Your task to perform on an android device: see creations saved in the google photos Image 0: 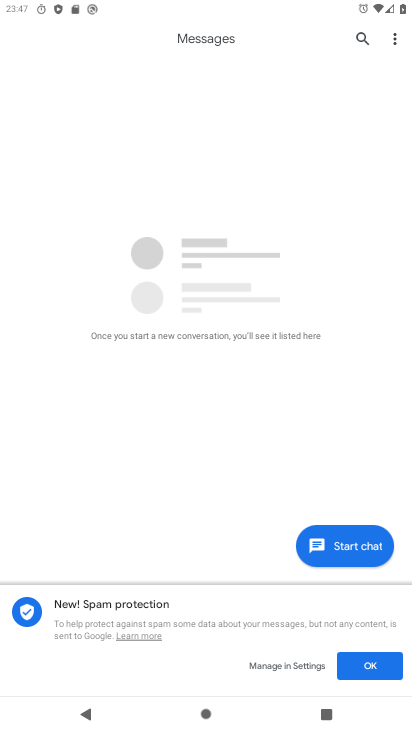
Step 0: press home button
Your task to perform on an android device: see creations saved in the google photos Image 1: 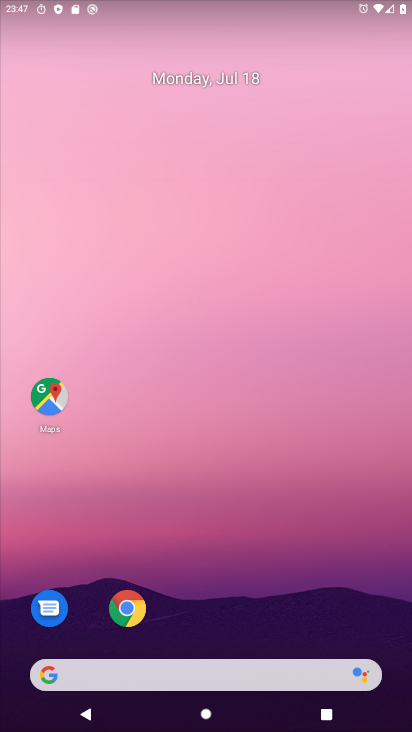
Step 1: drag from (184, 667) to (267, 179)
Your task to perform on an android device: see creations saved in the google photos Image 2: 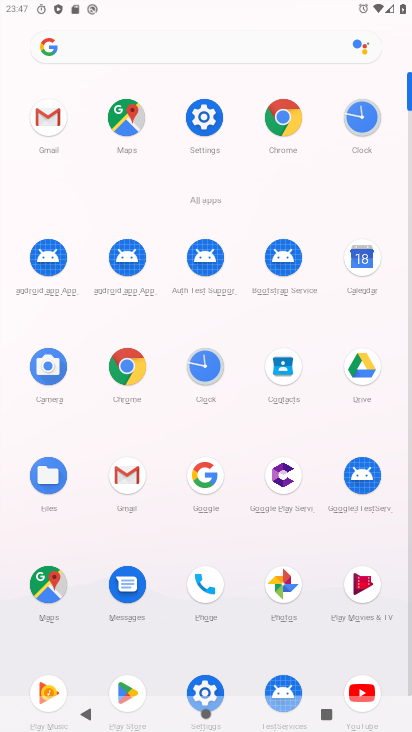
Step 2: click (285, 583)
Your task to perform on an android device: see creations saved in the google photos Image 3: 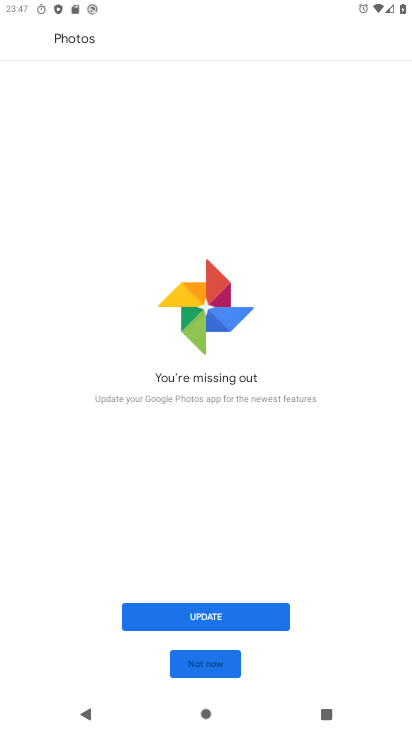
Step 3: click (208, 619)
Your task to perform on an android device: see creations saved in the google photos Image 4: 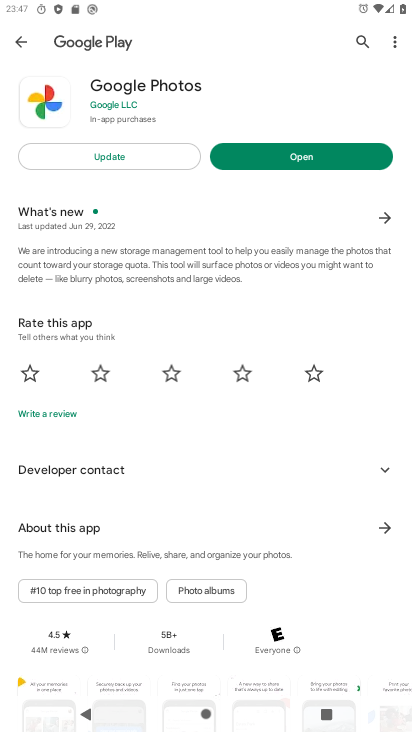
Step 4: click (150, 153)
Your task to perform on an android device: see creations saved in the google photos Image 5: 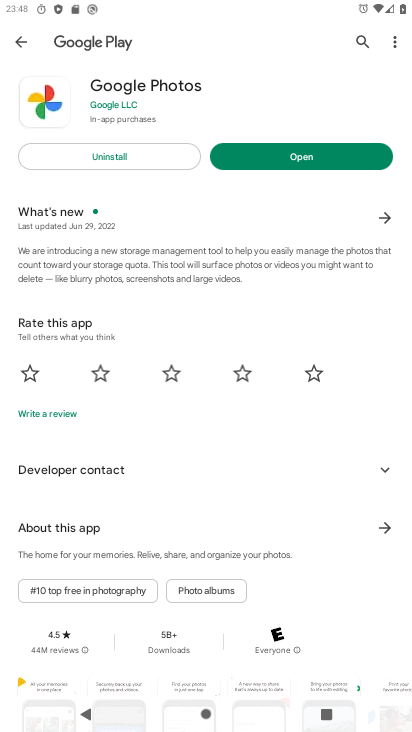
Step 5: click (314, 160)
Your task to perform on an android device: see creations saved in the google photos Image 6: 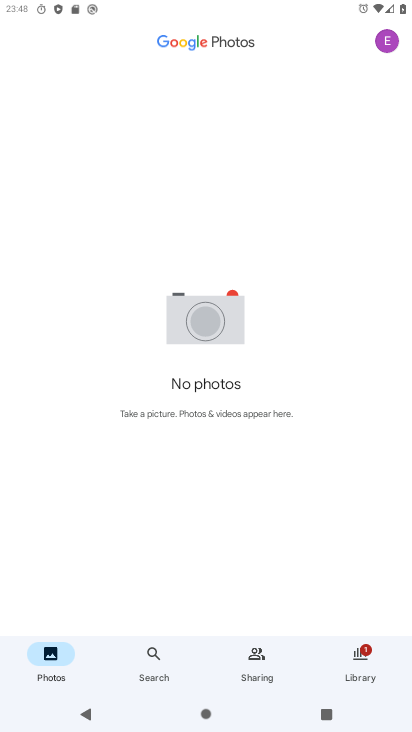
Step 6: click (254, 653)
Your task to perform on an android device: see creations saved in the google photos Image 7: 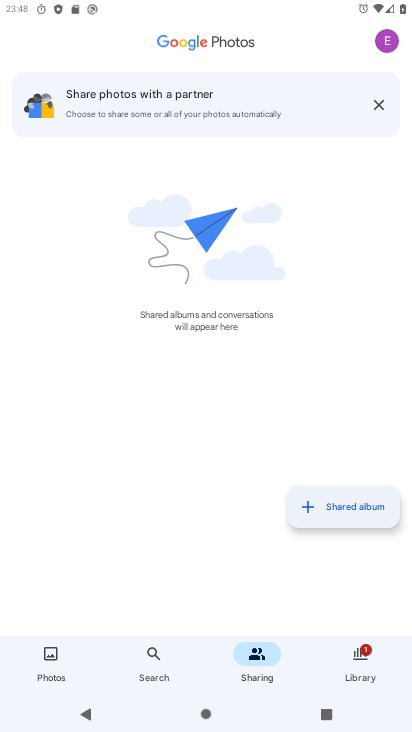
Step 7: click (363, 653)
Your task to perform on an android device: see creations saved in the google photos Image 8: 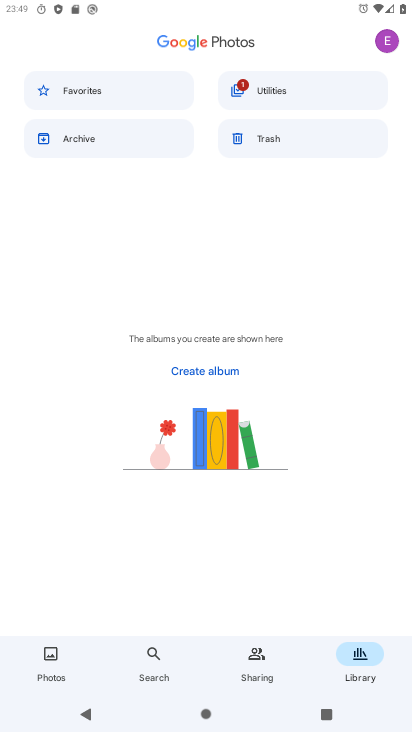
Step 8: click (53, 662)
Your task to perform on an android device: see creations saved in the google photos Image 9: 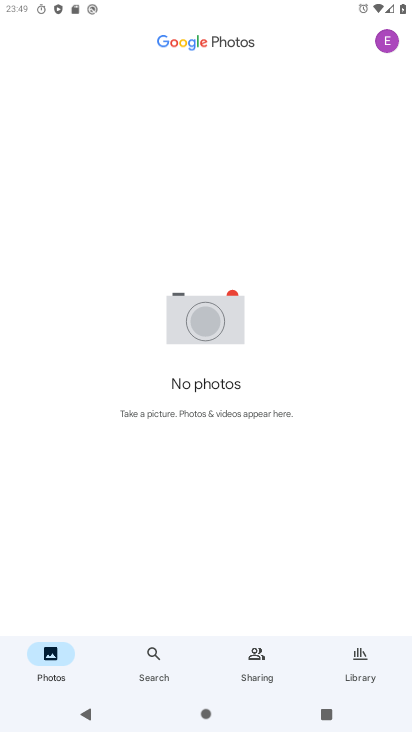
Step 9: click (260, 657)
Your task to perform on an android device: see creations saved in the google photos Image 10: 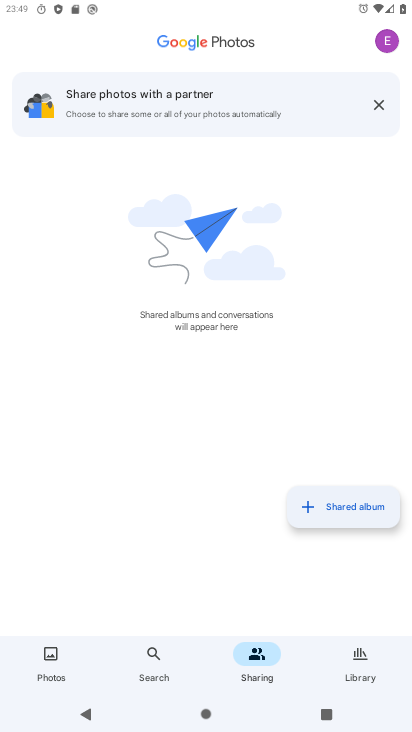
Step 10: click (362, 654)
Your task to perform on an android device: see creations saved in the google photos Image 11: 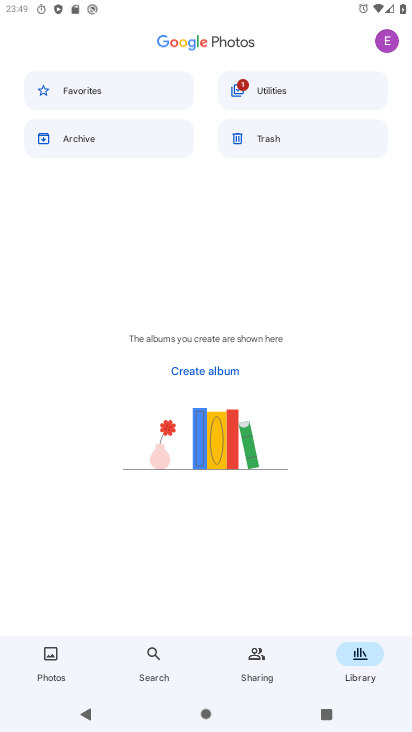
Step 11: click (262, 93)
Your task to perform on an android device: see creations saved in the google photos Image 12: 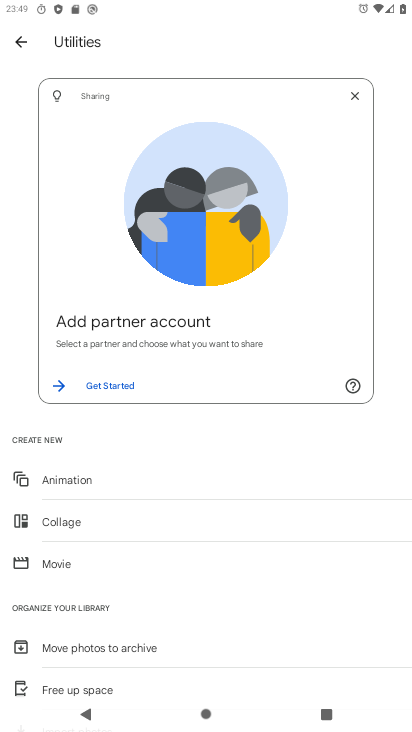
Step 12: task complete